Your task to perform on an android device: Go to internet settings Image 0: 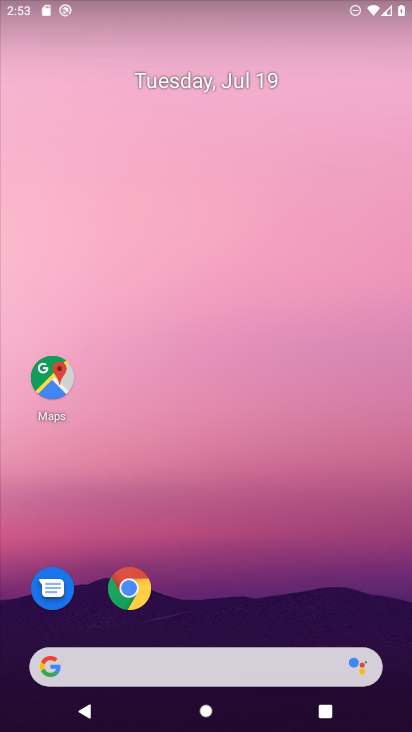
Step 0: drag from (195, 564) to (195, 188)
Your task to perform on an android device: Go to internet settings Image 1: 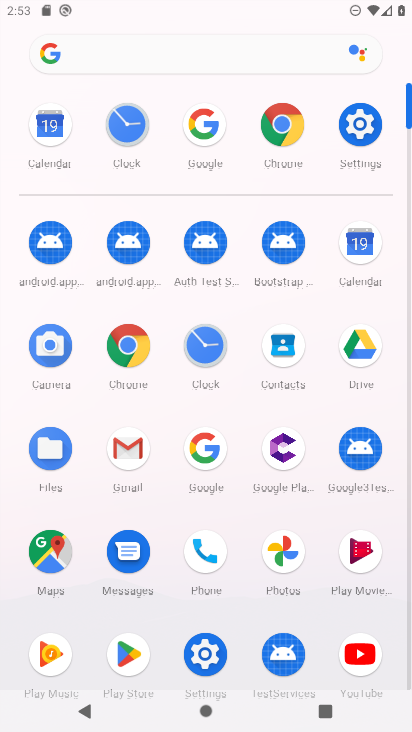
Step 1: click (358, 135)
Your task to perform on an android device: Go to internet settings Image 2: 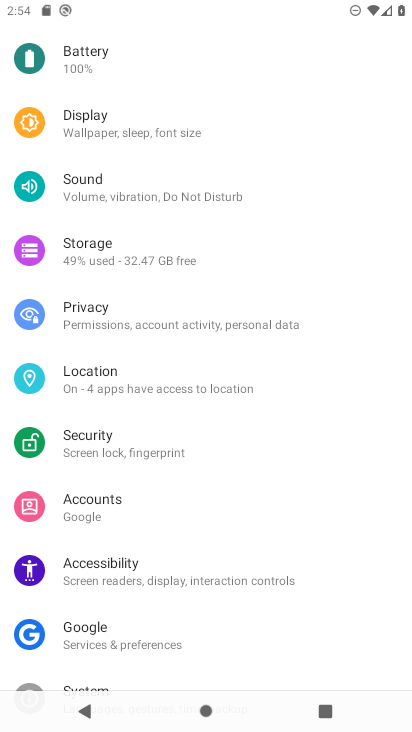
Step 2: drag from (180, 223) to (160, 510)
Your task to perform on an android device: Go to internet settings Image 3: 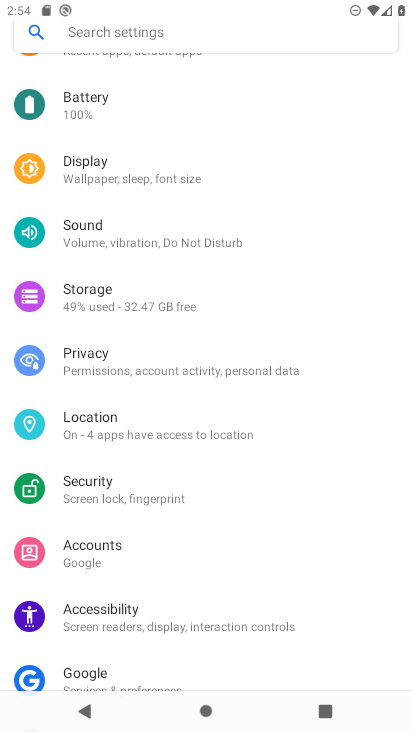
Step 3: drag from (170, 293) to (137, 542)
Your task to perform on an android device: Go to internet settings Image 4: 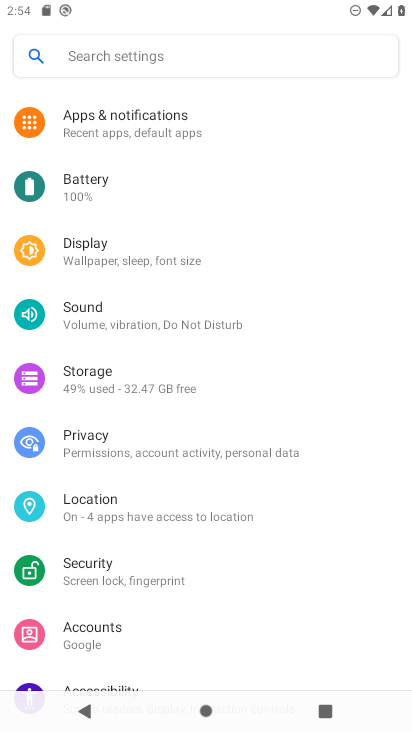
Step 4: drag from (144, 192) to (139, 458)
Your task to perform on an android device: Go to internet settings Image 5: 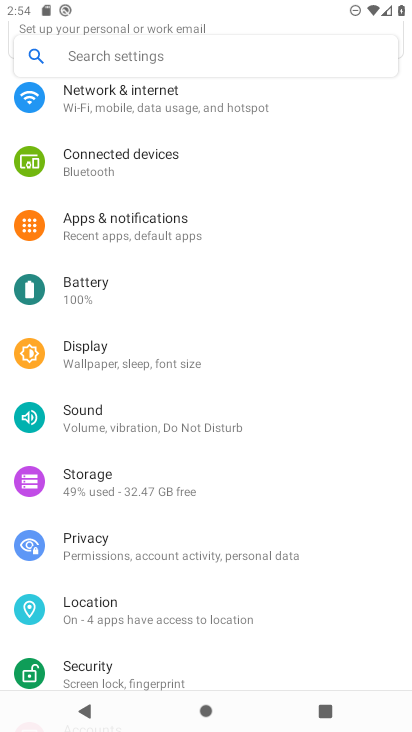
Step 5: click (138, 105)
Your task to perform on an android device: Go to internet settings Image 6: 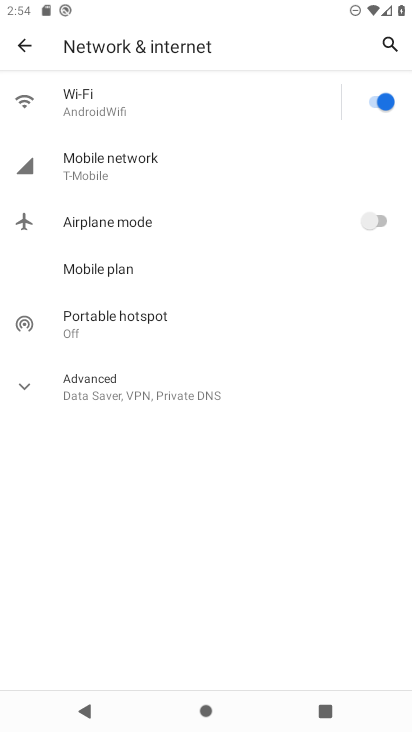
Step 6: task complete